Your task to perform on an android device: set an alarm Image 0: 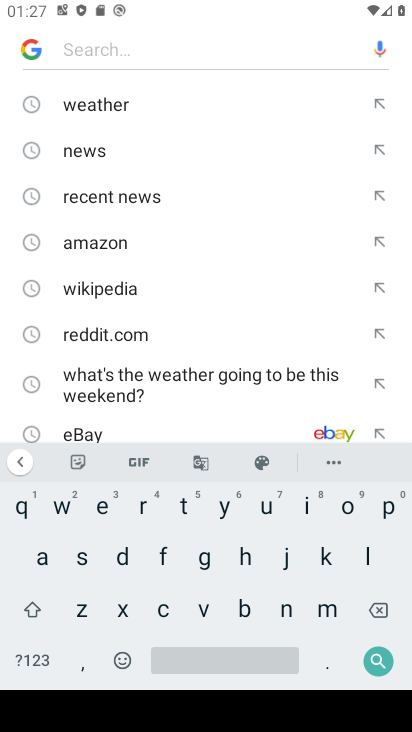
Step 0: press home button
Your task to perform on an android device: set an alarm Image 1: 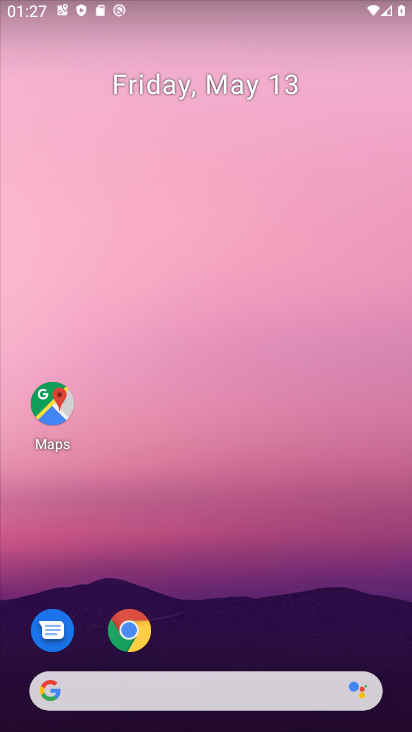
Step 1: drag from (213, 671) to (245, 386)
Your task to perform on an android device: set an alarm Image 2: 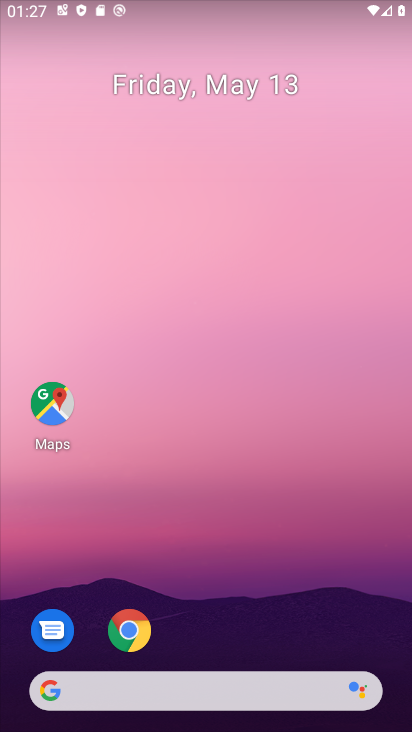
Step 2: drag from (247, 711) to (258, 346)
Your task to perform on an android device: set an alarm Image 3: 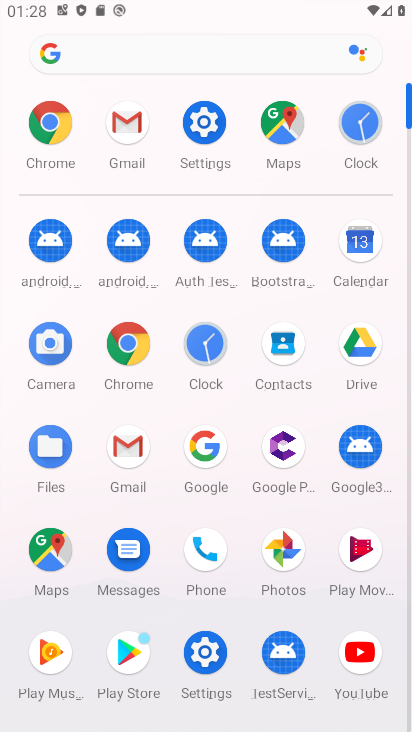
Step 3: click (215, 355)
Your task to perform on an android device: set an alarm Image 4: 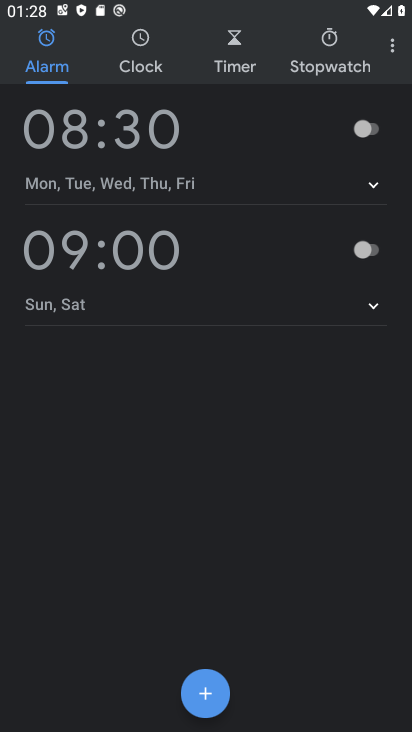
Step 4: click (371, 136)
Your task to perform on an android device: set an alarm Image 5: 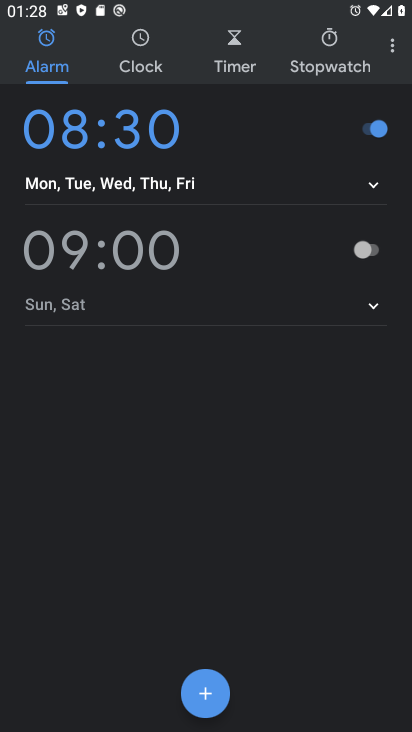
Step 5: task complete